Your task to perform on an android device: What's the weather today? Image 0: 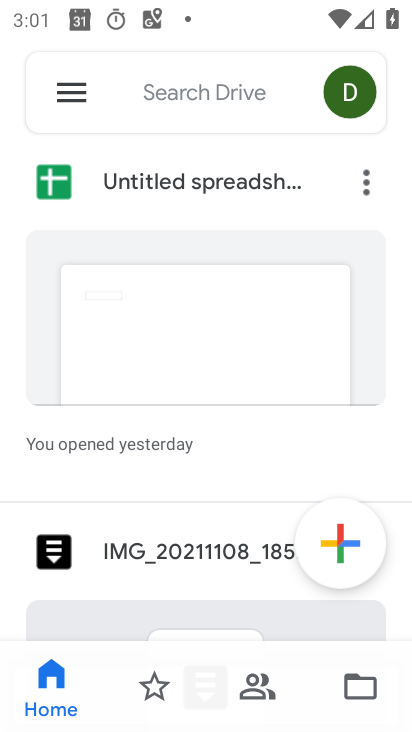
Step 0: press home button
Your task to perform on an android device: What's the weather today? Image 1: 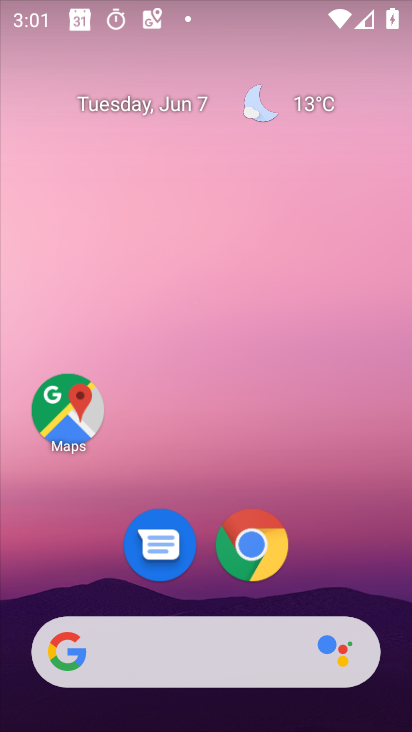
Step 1: click (312, 100)
Your task to perform on an android device: What's the weather today? Image 2: 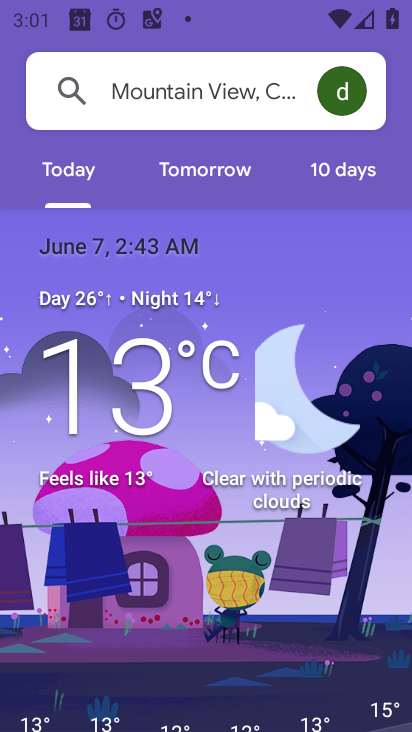
Step 2: task complete